Your task to perform on an android device: open app "eBay: The shopping marketplace" Image 0: 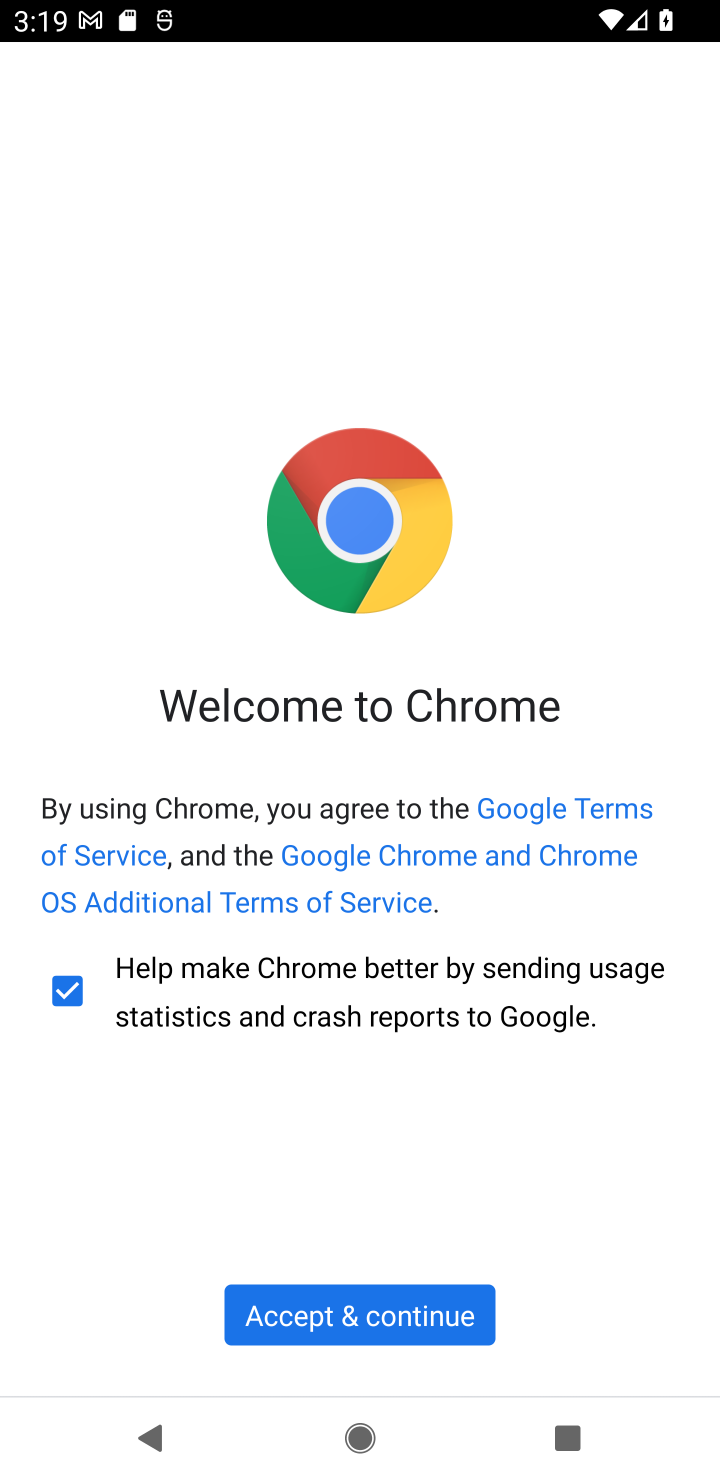
Step 0: press home button
Your task to perform on an android device: open app "eBay: The shopping marketplace" Image 1: 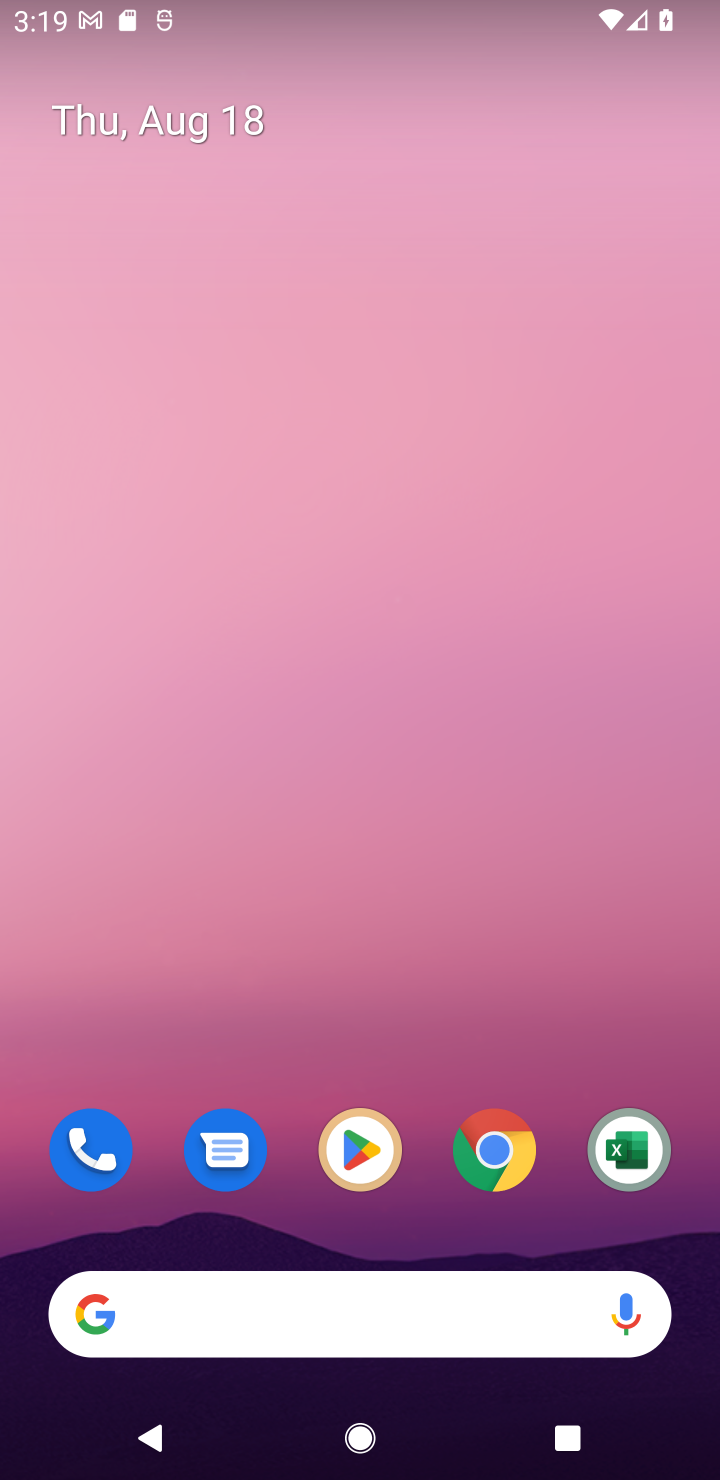
Step 1: click (365, 1149)
Your task to perform on an android device: open app "eBay: The shopping marketplace" Image 2: 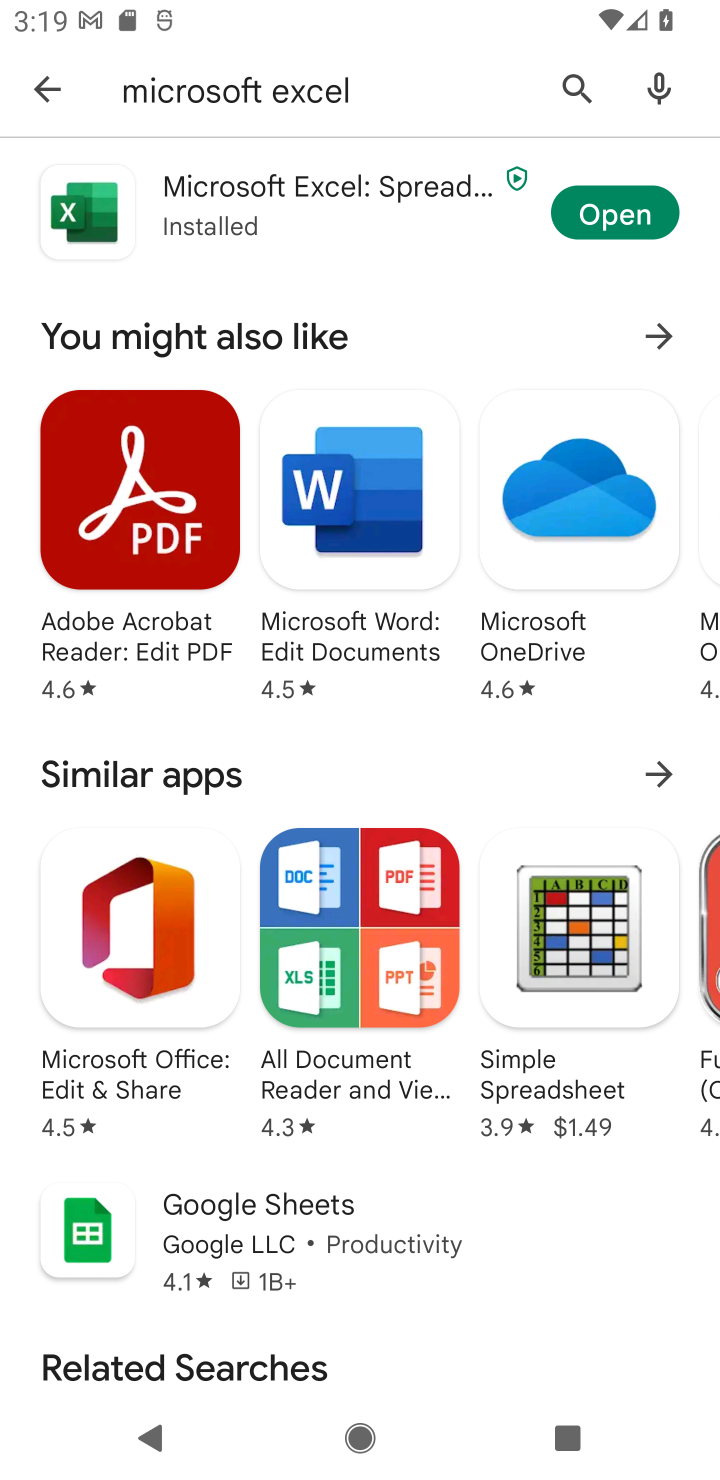
Step 2: click (569, 95)
Your task to perform on an android device: open app "eBay: The shopping marketplace" Image 3: 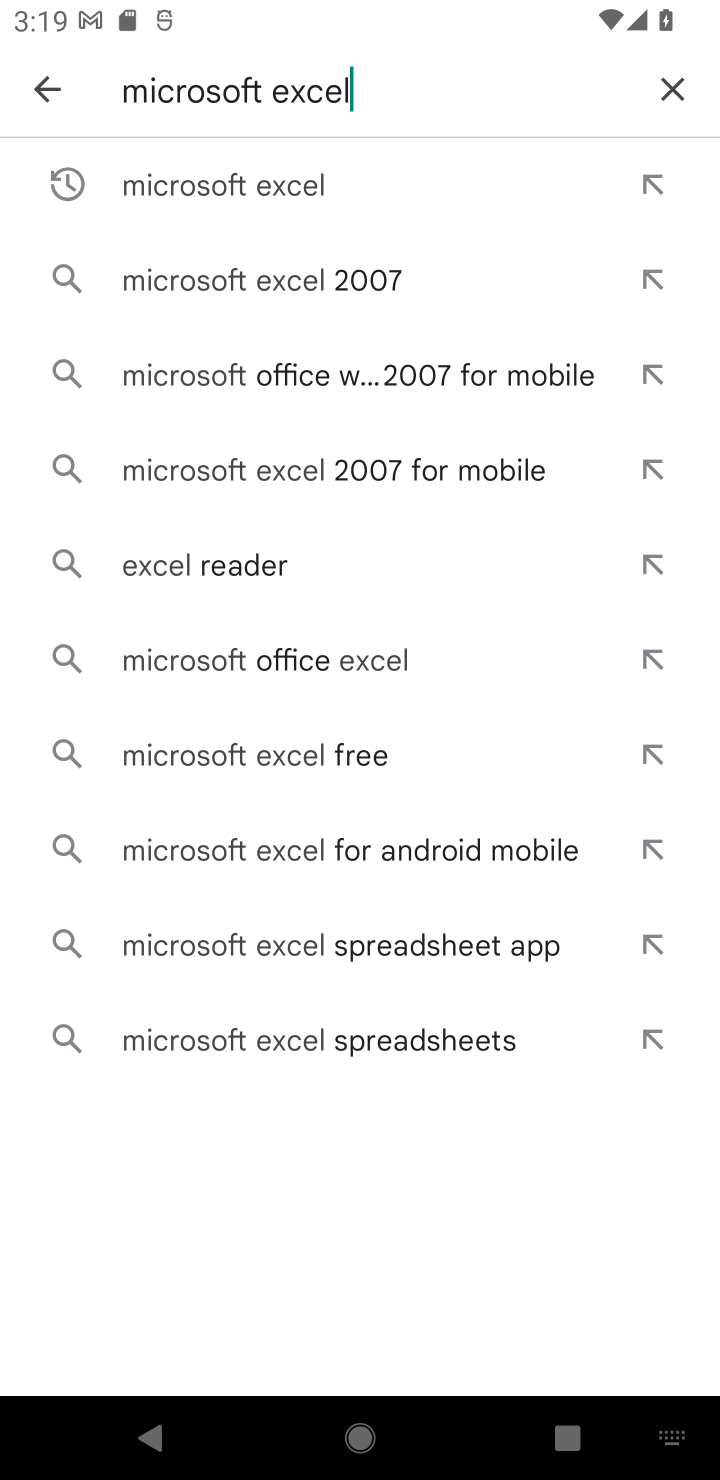
Step 3: click (672, 81)
Your task to perform on an android device: open app "eBay: The shopping marketplace" Image 4: 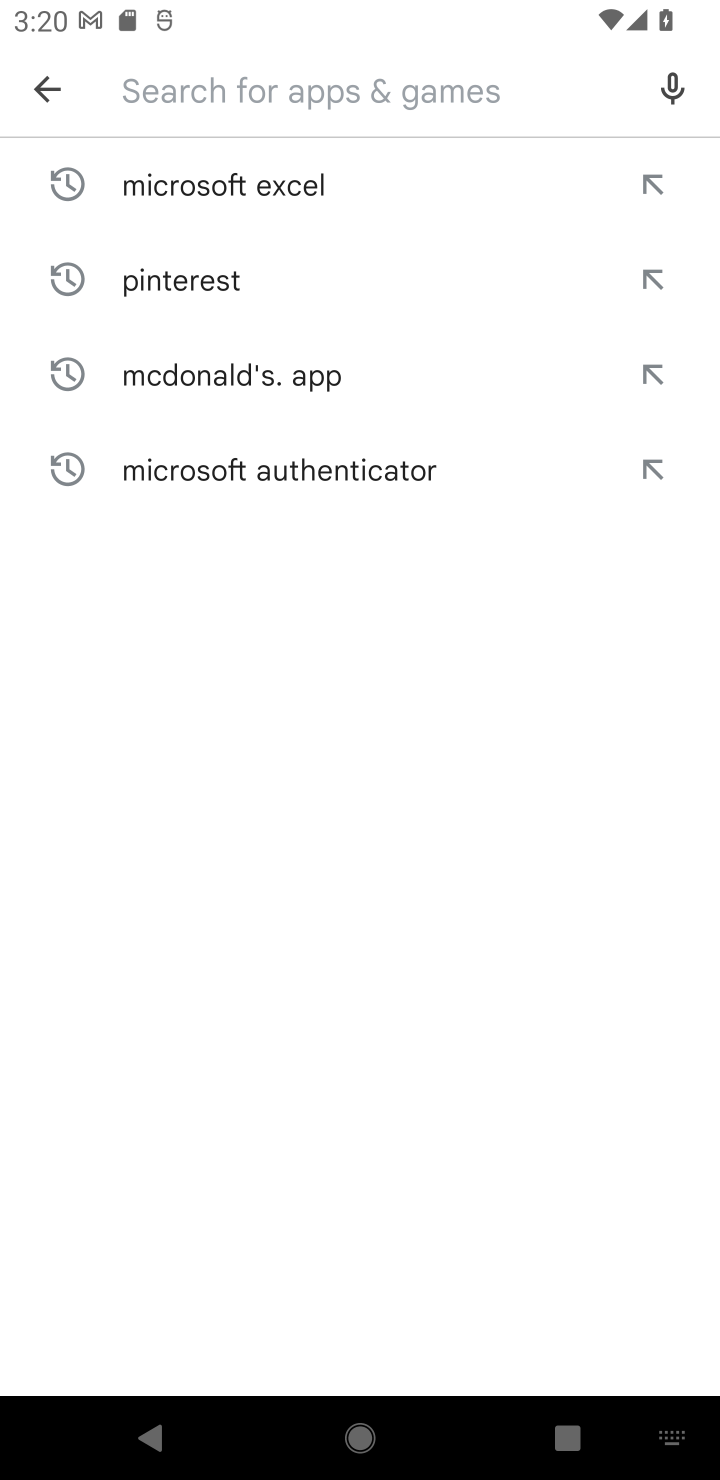
Step 4: type "eBay: The shopping marketplace"
Your task to perform on an android device: open app "eBay: The shopping marketplace" Image 5: 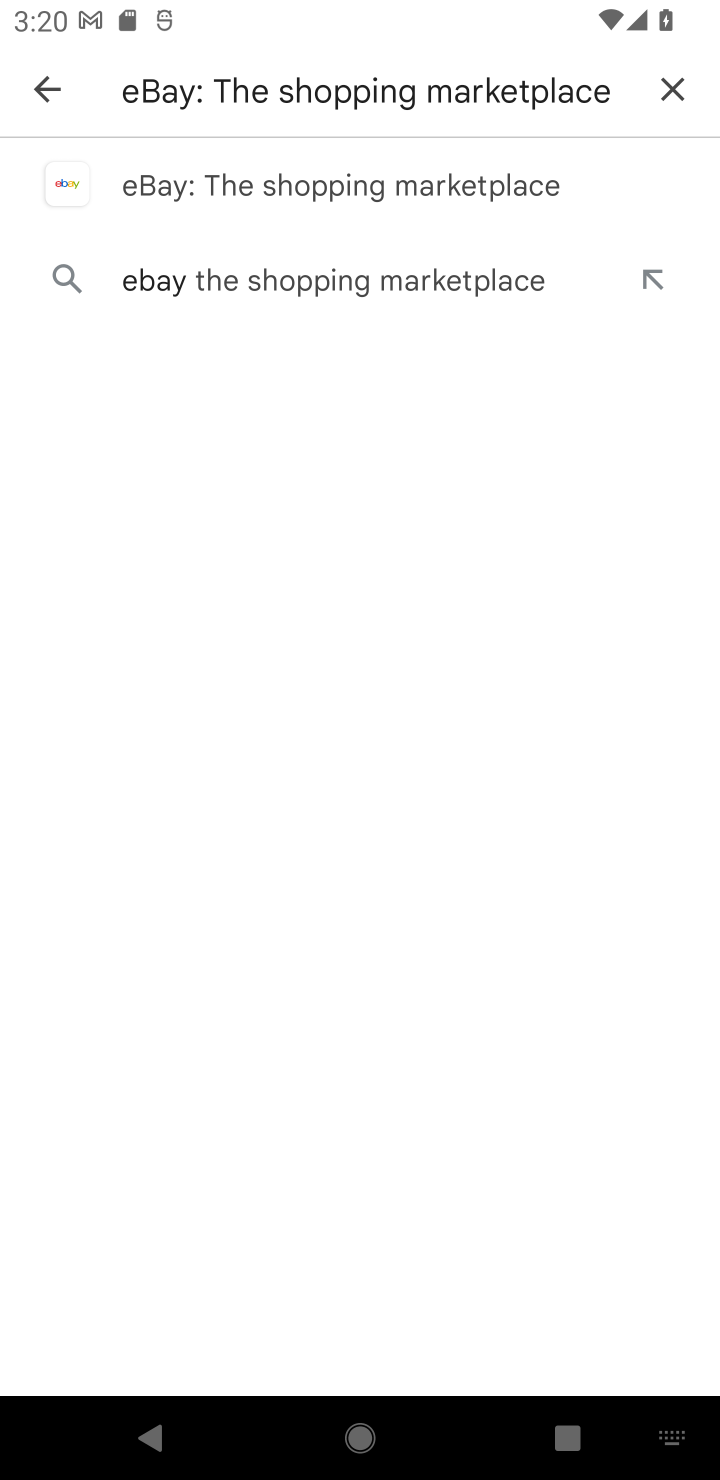
Step 5: click (291, 193)
Your task to perform on an android device: open app "eBay: The shopping marketplace" Image 6: 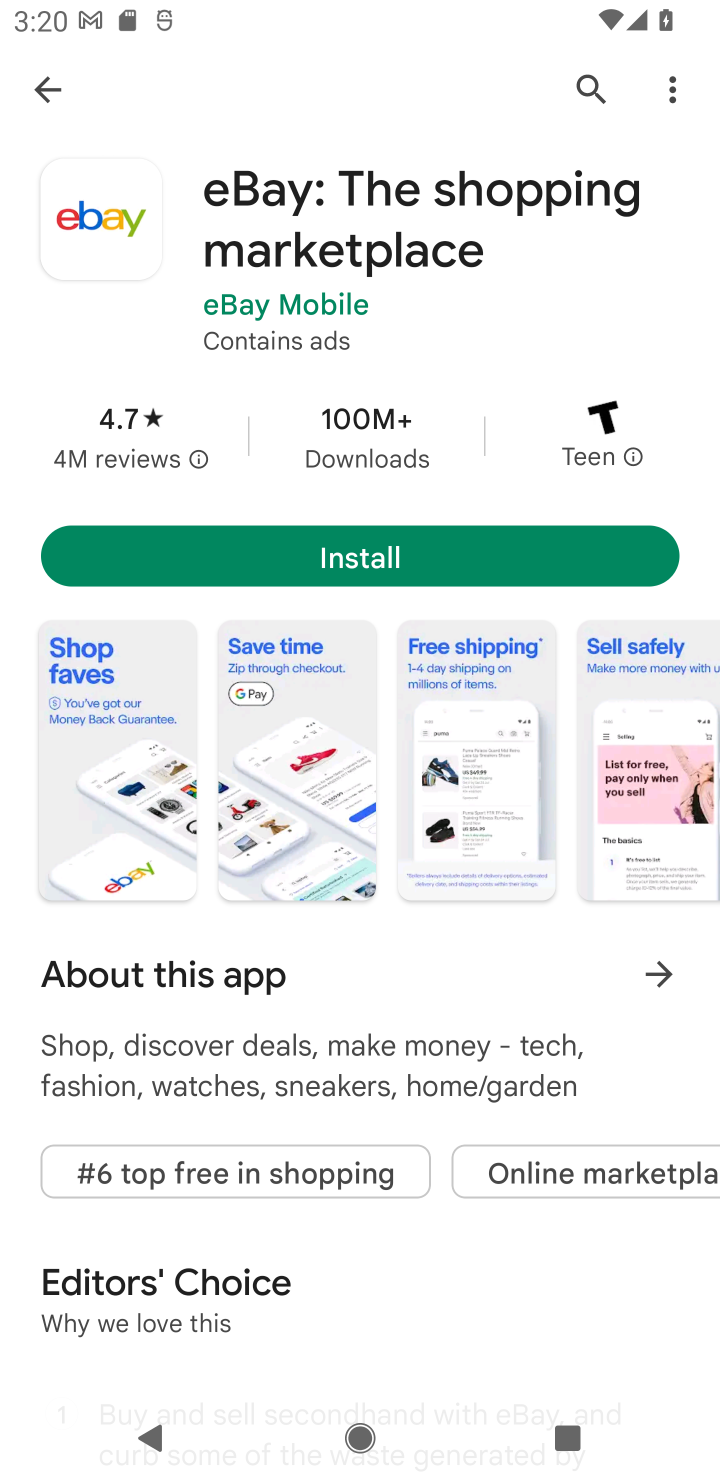
Step 6: task complete